Your task to perform on an android device: toggle sleep mode Image 0: 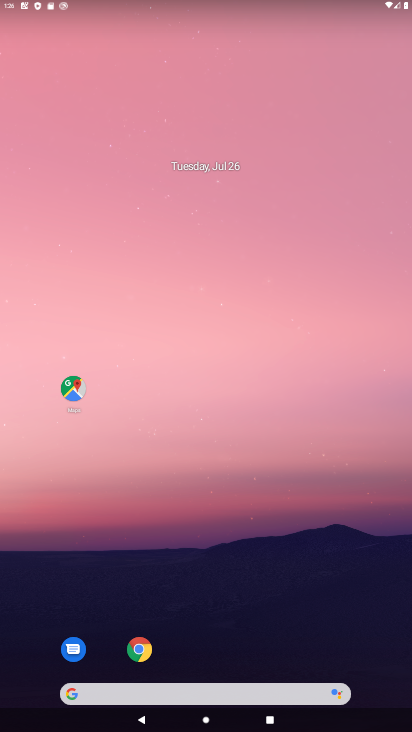
Step 0: press home button
Your task to perform on an android device: toggle sleep mode Image 1: 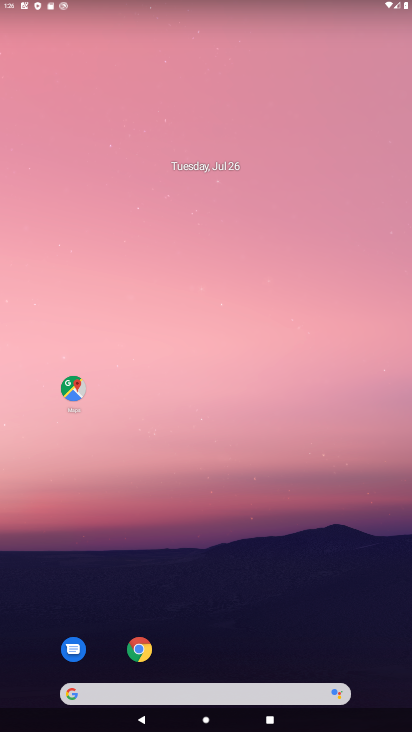
Step 1: drag from (204, 654) to (232, 160)
Your task to perform on an android device: toggle sleep mode Image 2: 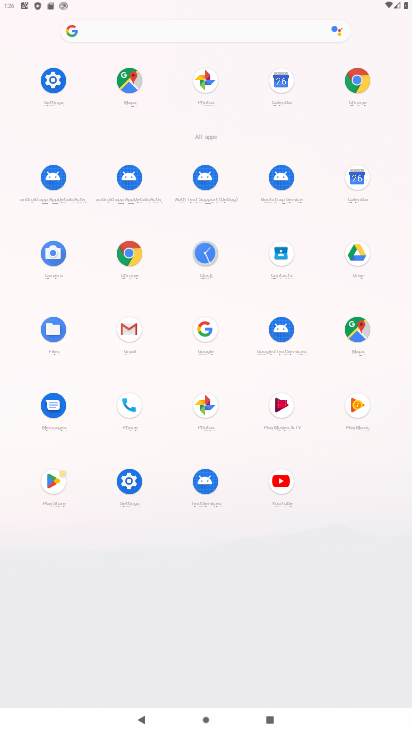
Step 2: click (51, 76)
Your task to perform on an android device: toggle sleep mode Image 3: 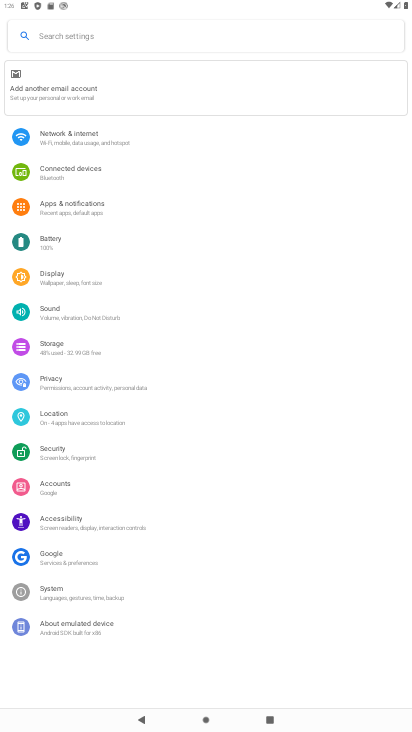
Step 3: click (65, 270)
Your task to perform on an android device: toggle sleep mode Image 4: 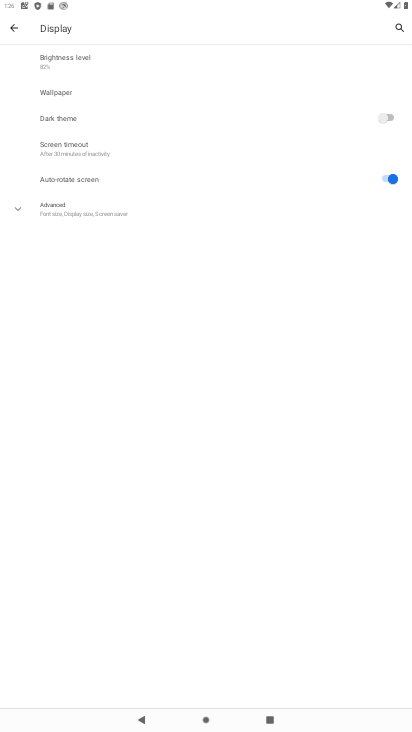
Step 4: click (18, 203)
Your task to perform on an android device: toggle sleep mode Image 5: 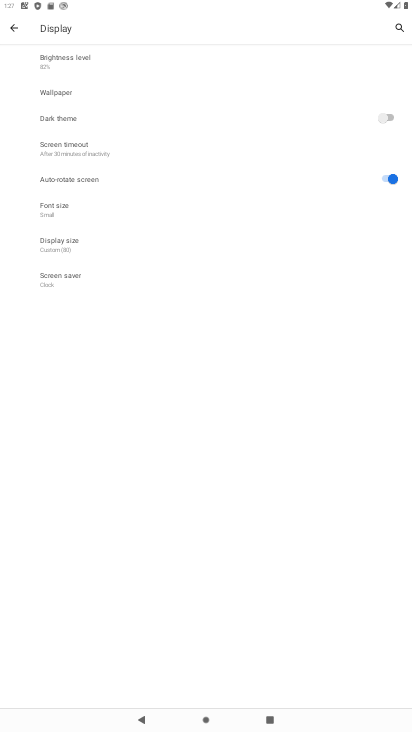
Step 5: task complete